Your task to perform on an android device: Turn on the flashlight Image 0: 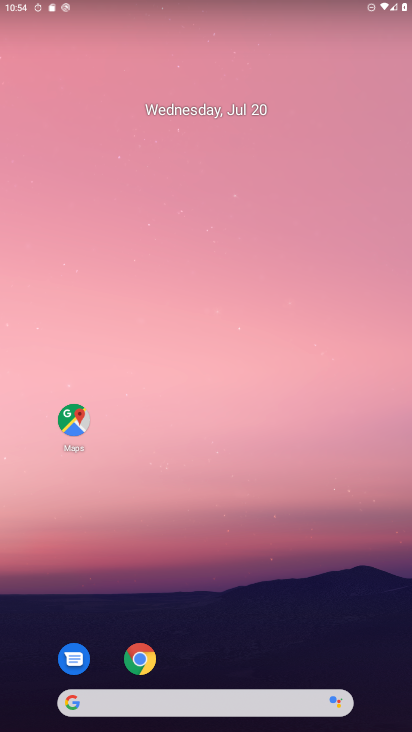
Step 0: drag from (333, 601) to (285, 51)
Your task to perform on an android device: Turn on the flashlight Image 1: 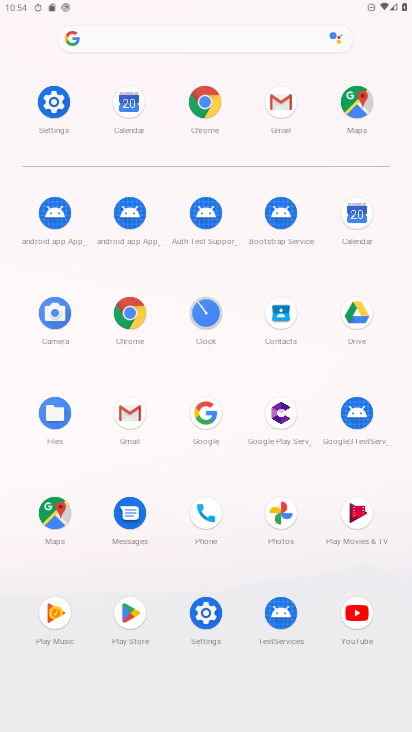
Step 1: click (55, 98)
Your task to perform on an android device: Turn on the flashlight Image 2: 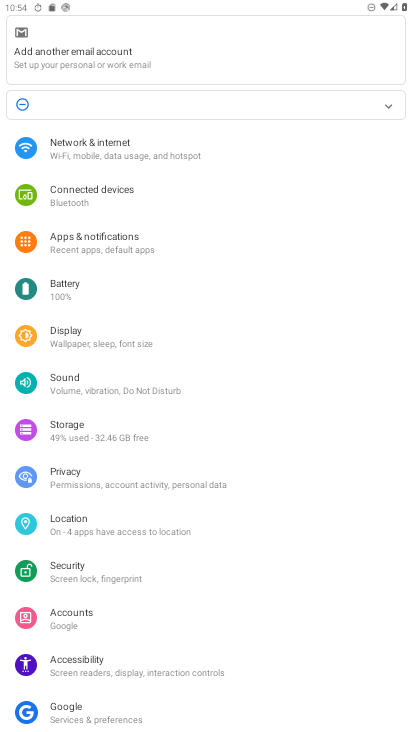
Step 2: click (84, 339)
Your task to perform on an android device: Turn on the flashlight Image 3: 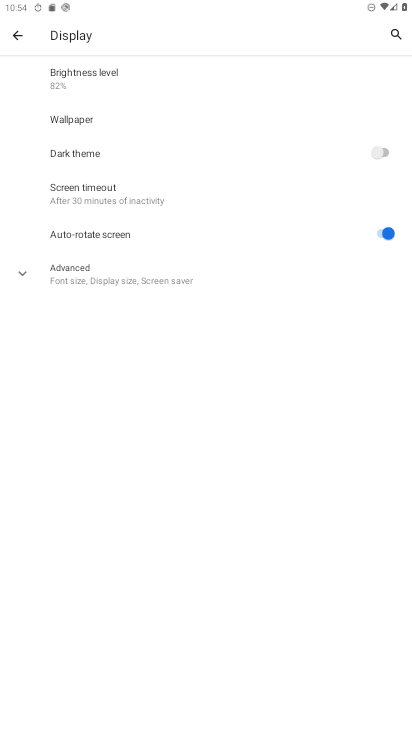
Step 3: click (99, 202)
Your task to perform on an android device: Turn on the flashlight Image 4: 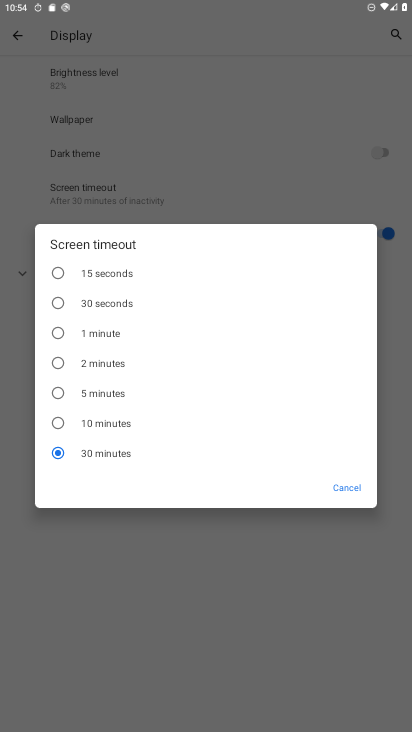
Step 4: task complete